Your task to perform on an android device: Search for the Best selling coffee table on Ikea Image 0: 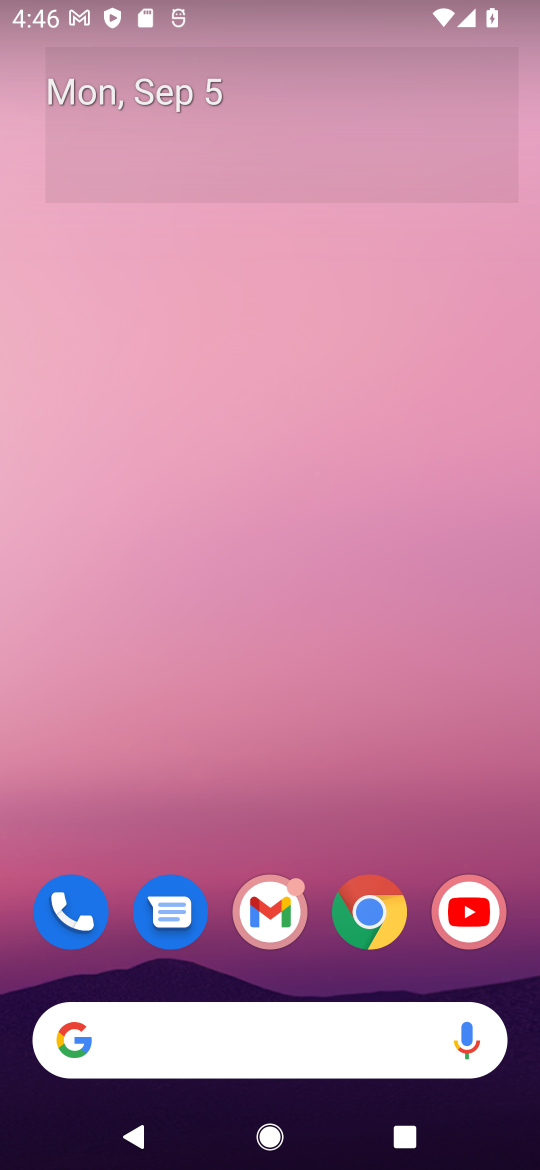
Step 0: click (369, 911)
Your task to perform on an android device: Search for the Best selling coffee table on Ikea Image 1: 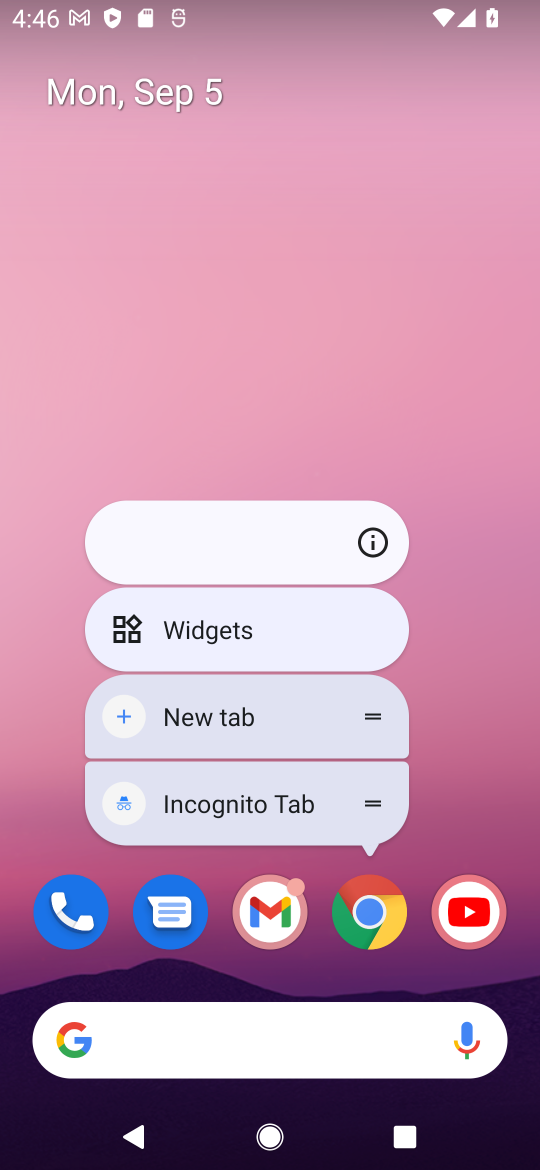
Step 1: click (369, 911)
Your task to perform on an android device: Search for the Best selling coffee table on Ikea Image 2: 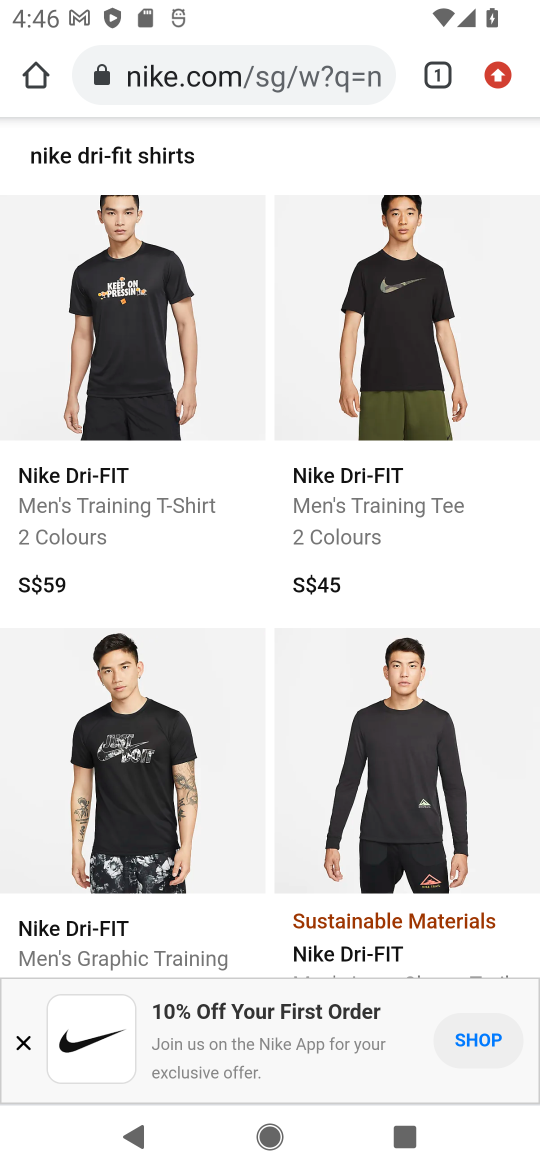
Step 2: click (329, 77)
Your task to perform on an android device: Search for the Best selling coffee table on Ikea Image 3: 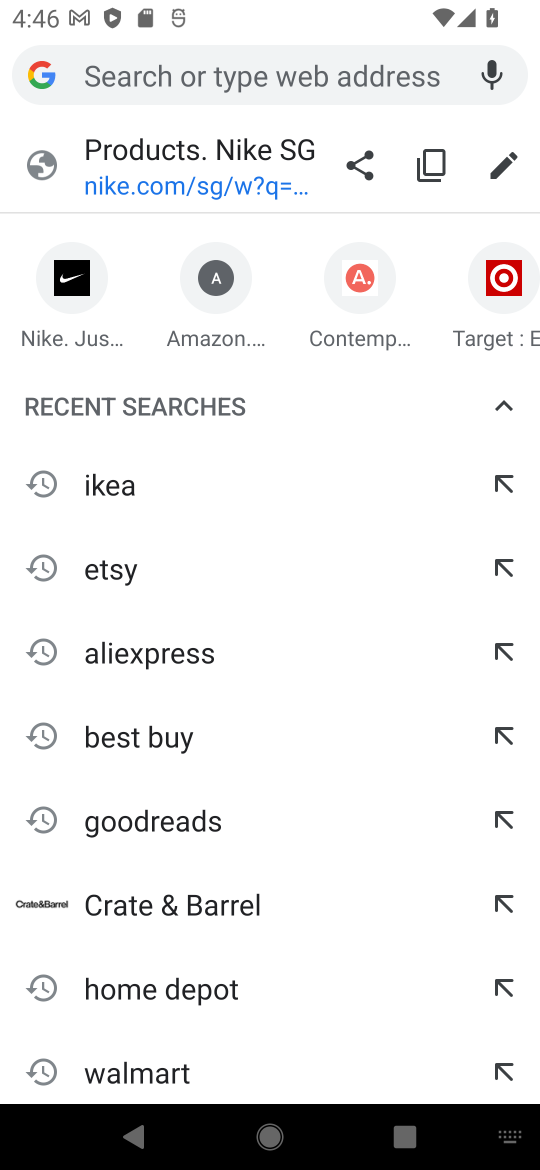
Step 3: type "ikea"
Your task to perform on an android device: Search for the Best selling coffee table on Ikea Image 4: 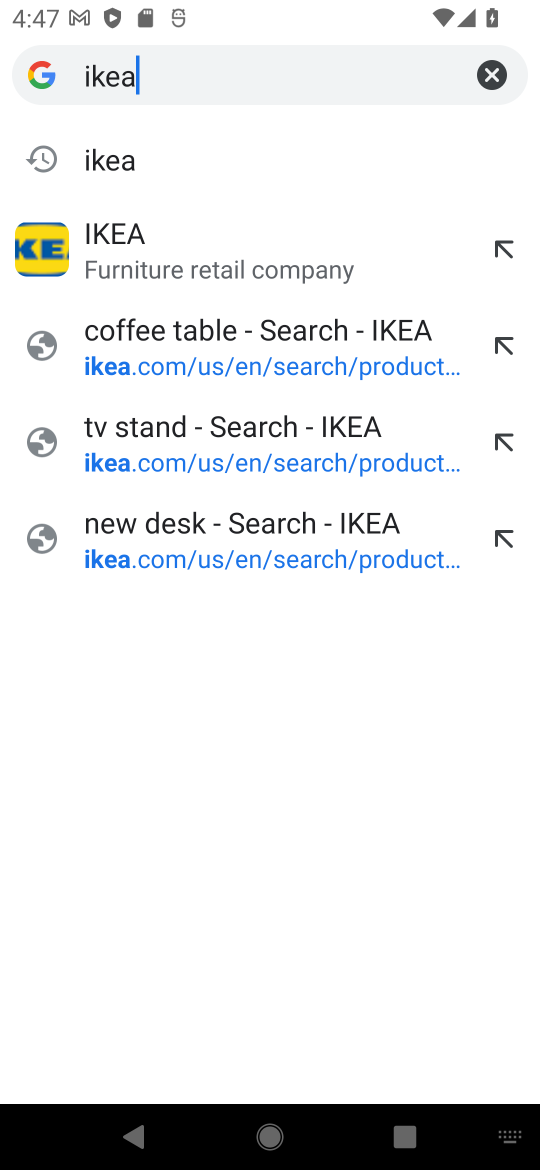
Step 4: press enter
Your task to perform on an android device: Search for the Best selling coffee table on Ikea Image 5: 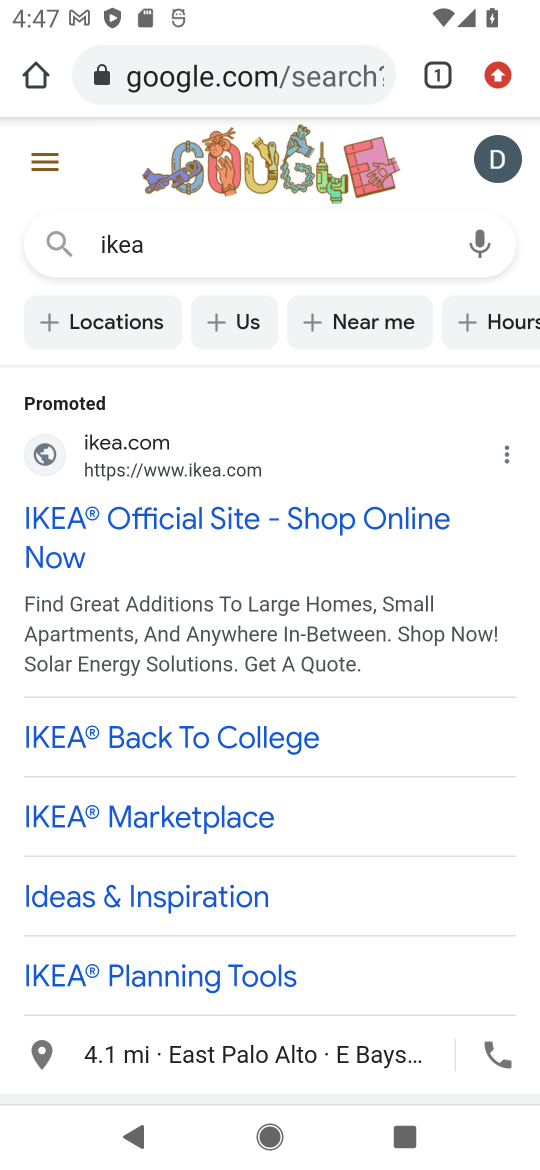
Step 5: click (206, 522)
Your task to perform on an android device: Search for the Best selling coffee table on Ikea Image 6: 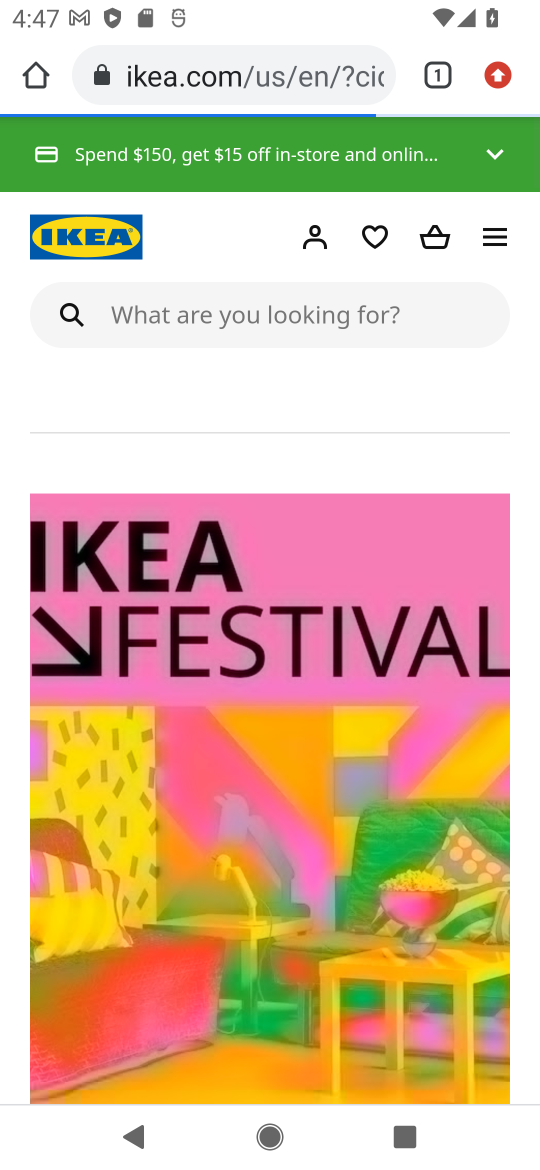
Step 6: click (294, 285)
Your task to perform on an android device: Search for the Best selling coffee table on Ikea Image 7: 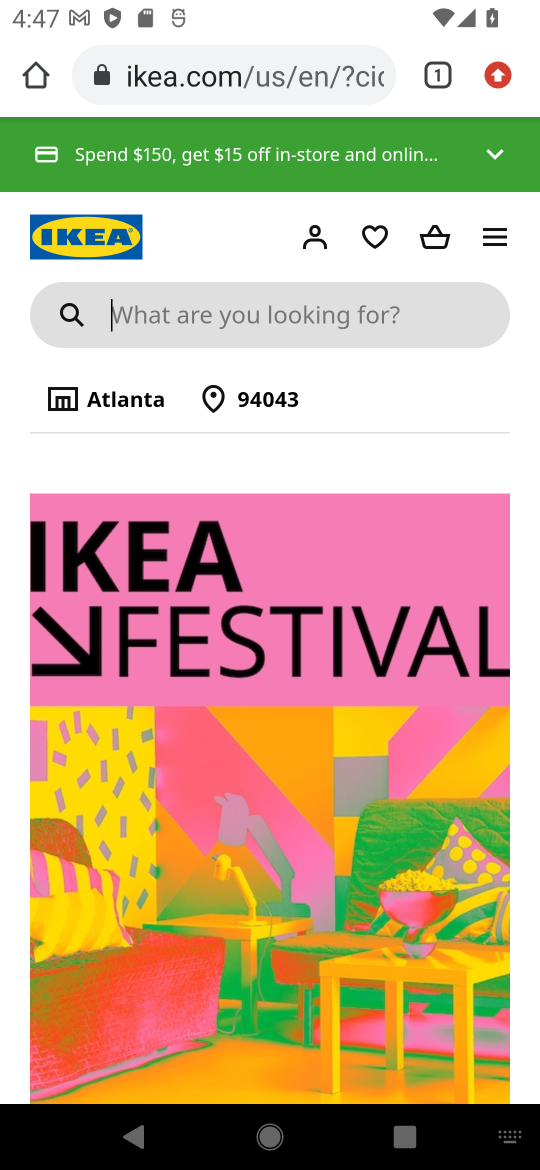
Step 7: type "best selling coffee table"
Your task to perform on an android device: Search for the Best selling coffee table on Ikea Image 8: 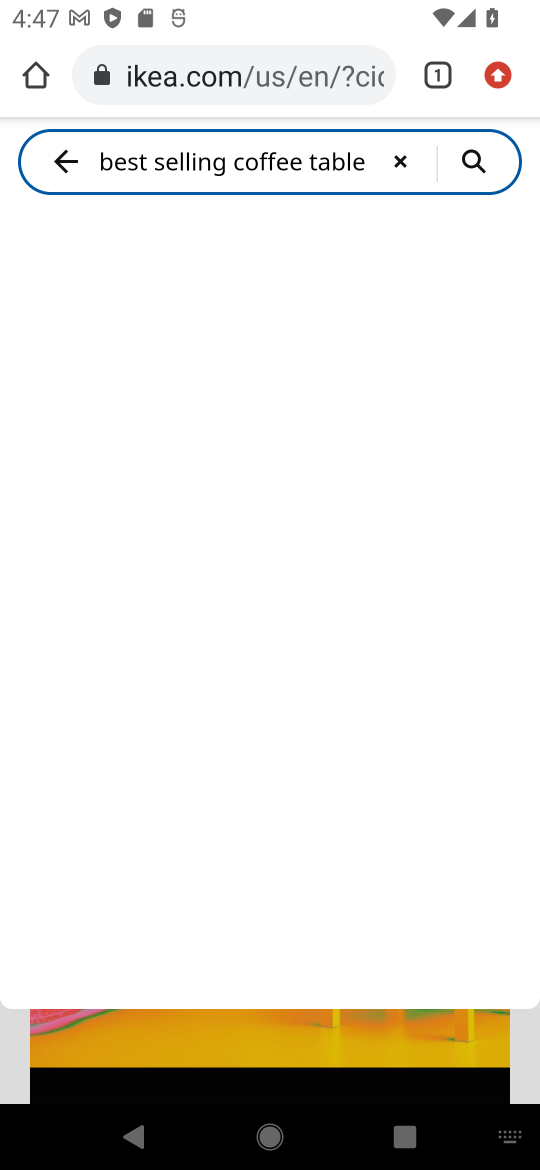
Step 8: press enter
Your task to perform on an android device: Search for the Best selling coffee table on Ikea Image 9: 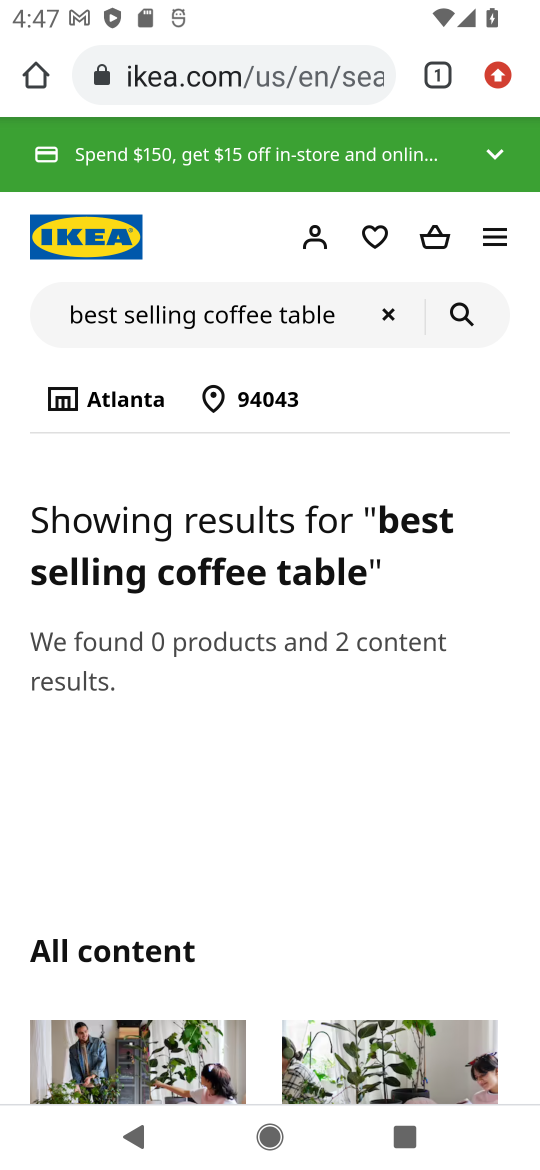
Step 9: click (388, 312)
Your task to perform on an android device: Search for the Best selling coffee table on Ikea Image 10: 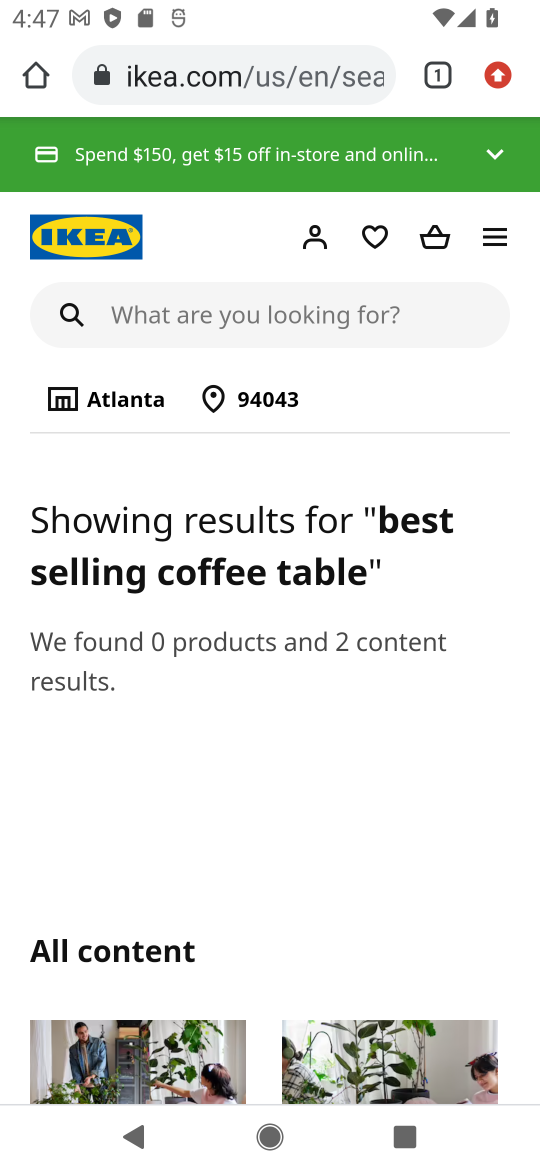
Step 10: click (285, 321)
Your task to perform on an android device: Search for the Best selling coffee table on Ikea Image 11: 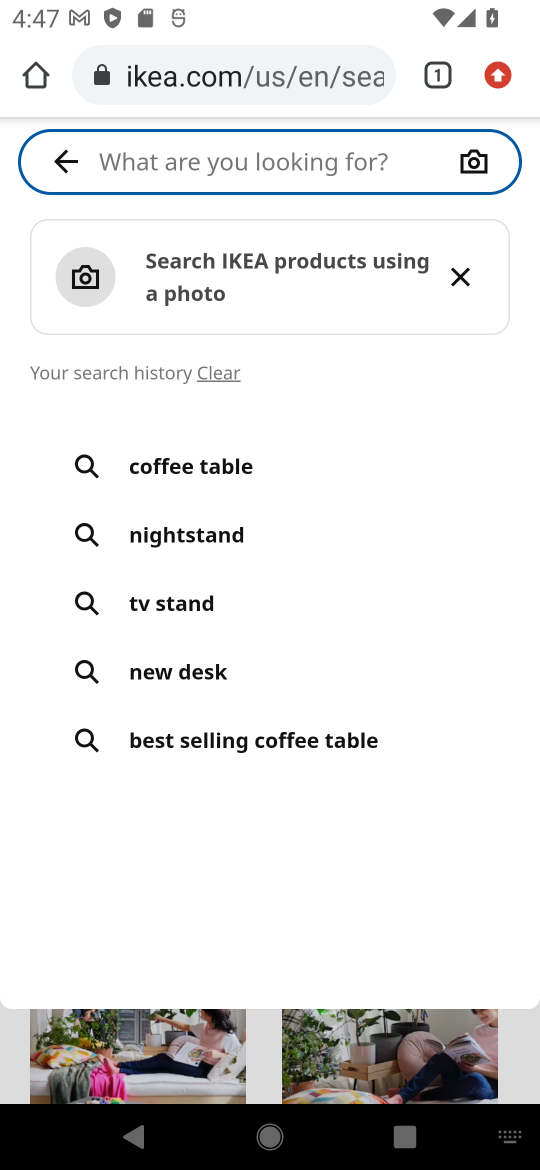
Step 11: type "coffee table"
Your task to perform on an android device: Search for the Best selling coffee table on Ikea Image 12: 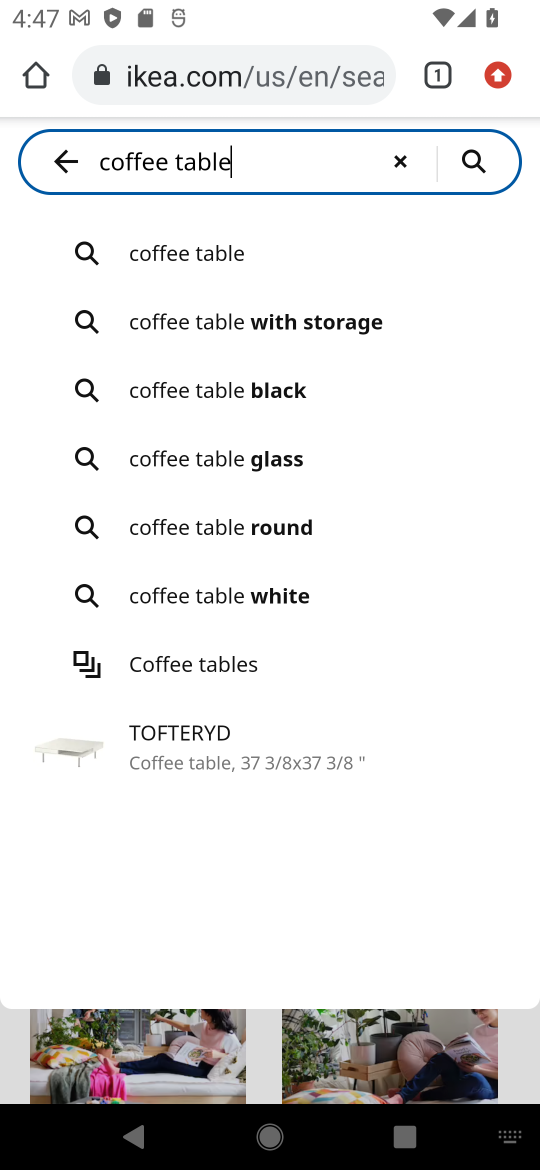
Step 12: press enter
Your task to perform on an android device: Search for the Best selling coffee table on Ikea Image 13: 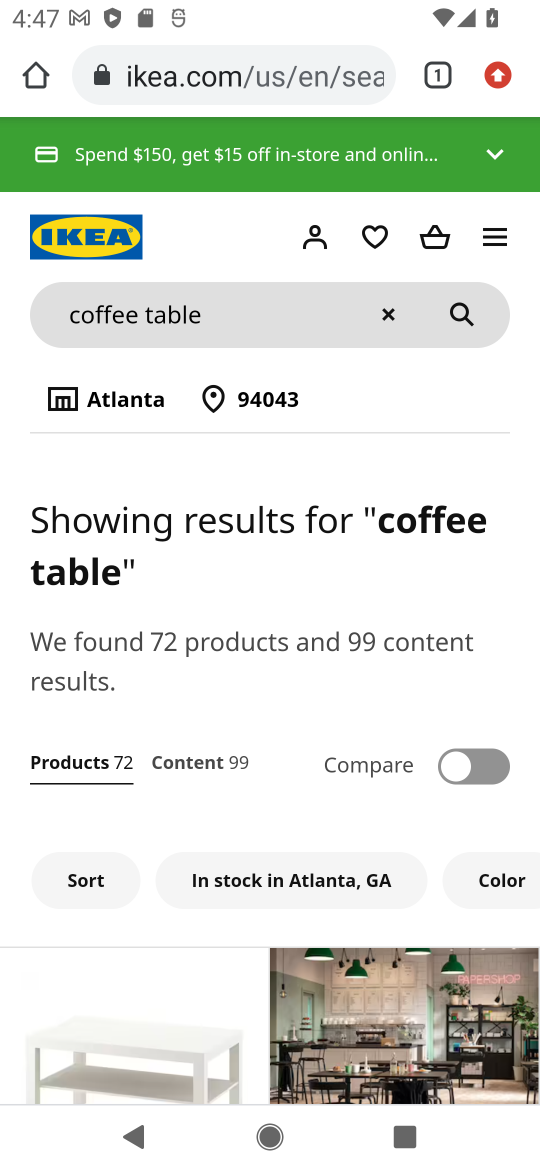
Step 13: click (80, 873)
Your task to perform on an android device: Search for the Best selling coffee table on Ikea Image 14: 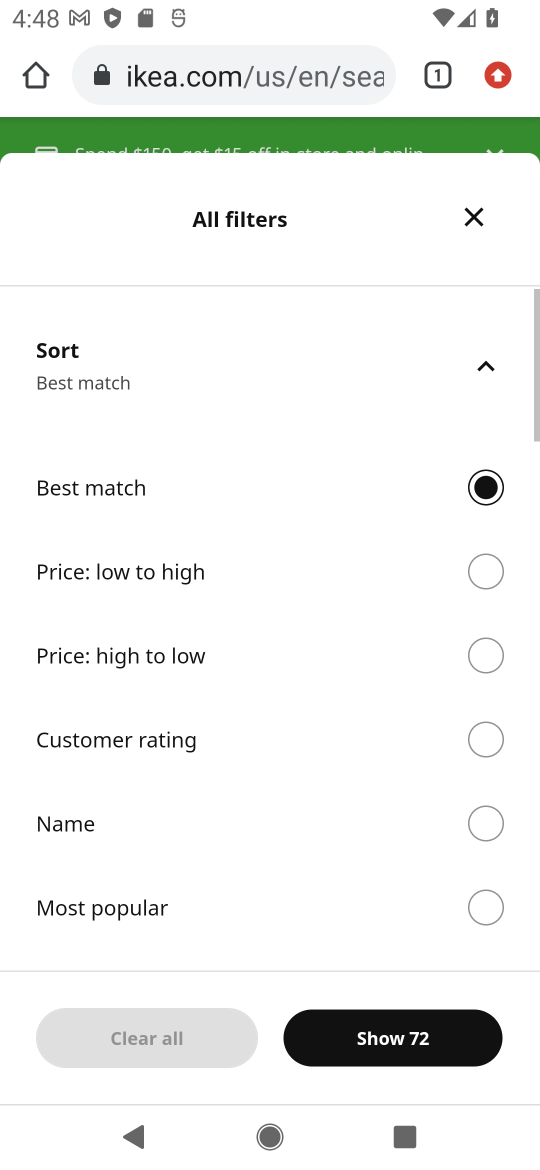
Step 14: drag from (333, 849) to (336, 339)
Your task to perform on an android device: Search for the Best selling coffee table on Ikea Image 15: 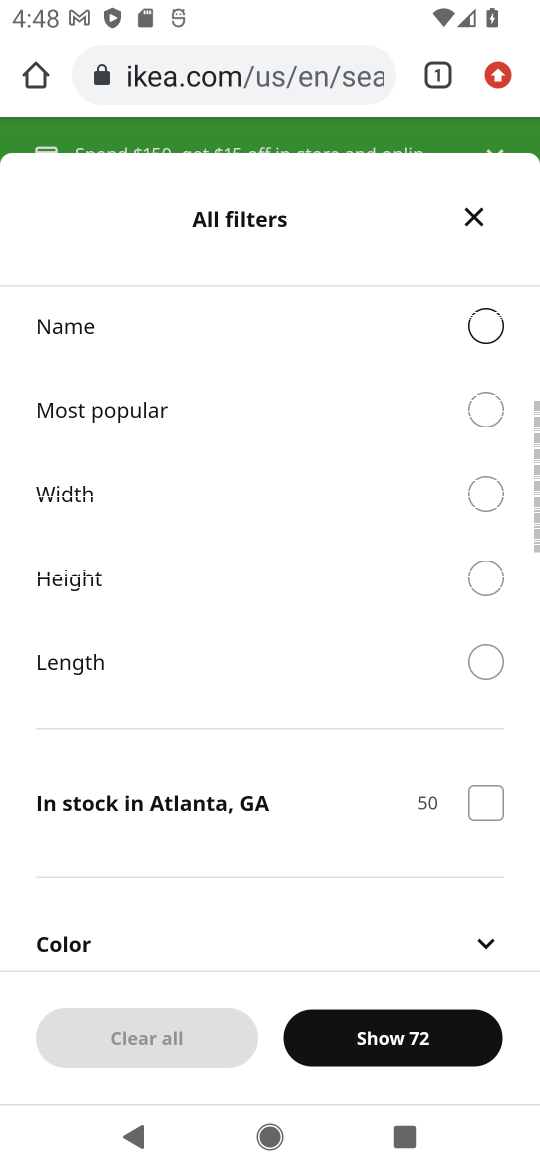
Step 15: drag from (366, 768) to (362, 279)
Your task to perform on an android device: Search for the Best selling coffee table on Ikea Image 16: 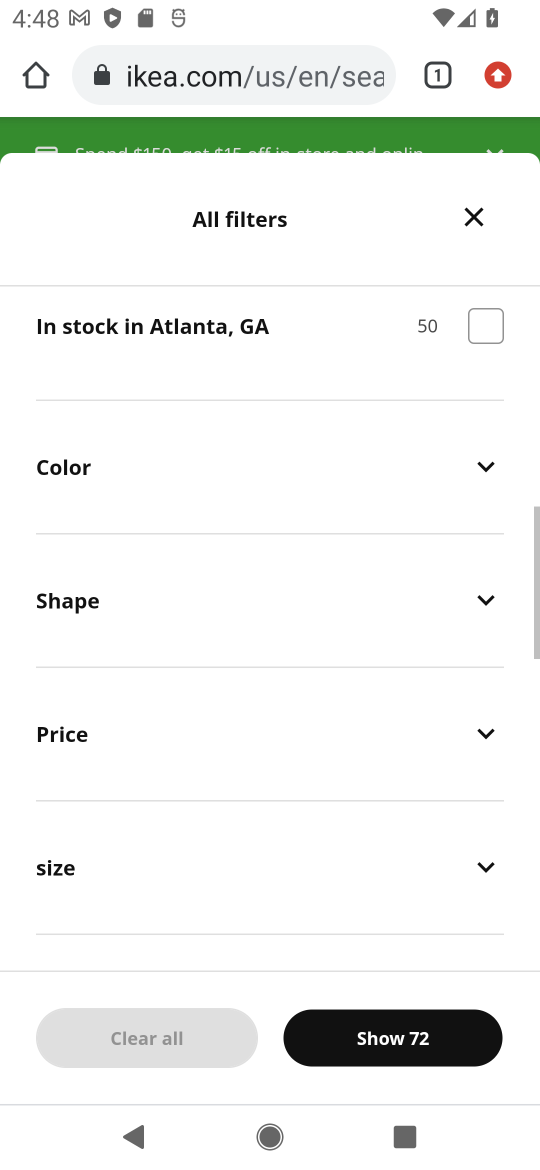
Step 16: drag from (342, 837) to (380, 436)
Your task to perform on an android device: Search for the Best selling coffee table on Ikea Image 17: 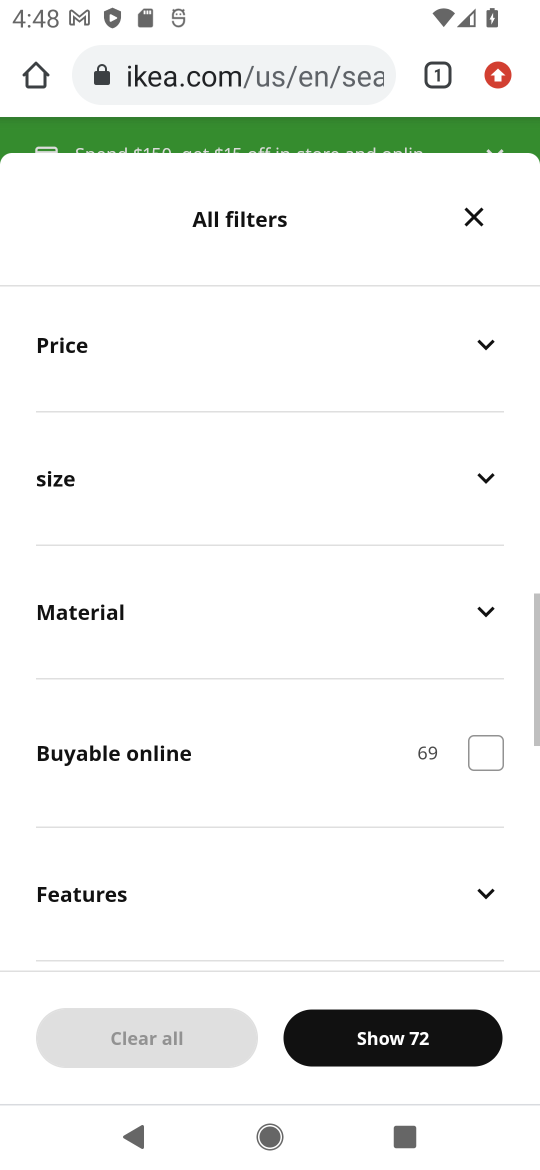
Step 17: drag from (349, 764) to (386, 371)
Your task to perform on an android device: Search for the Best selling coffee table on Ikea Image 18: 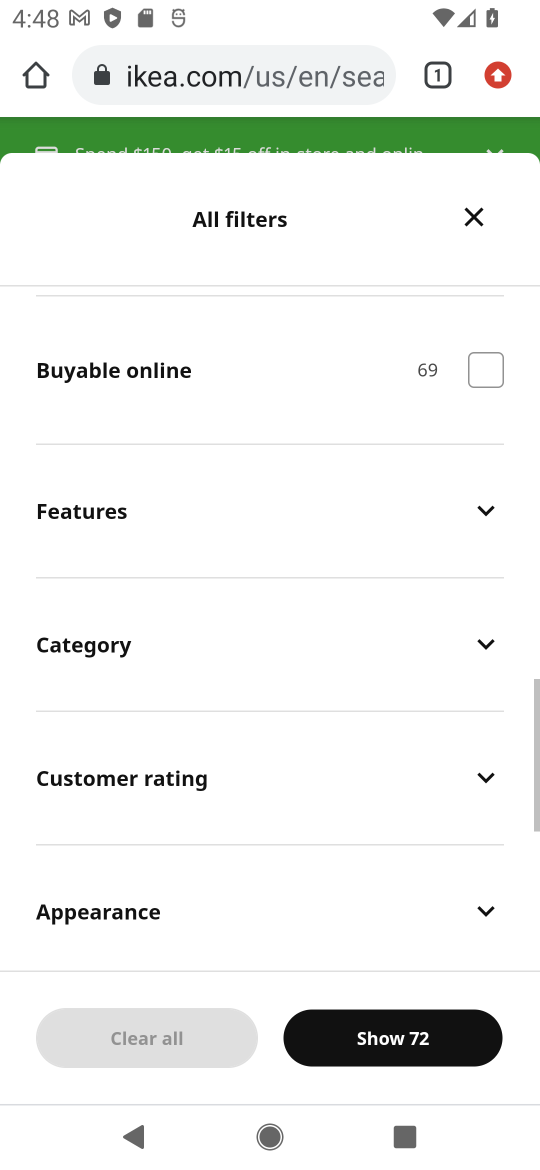
Step 18: drag from (235, 919) to (294, 440)
Your task to perform on an android device: Search for the Best selling coffee table on Ikea Image 19: 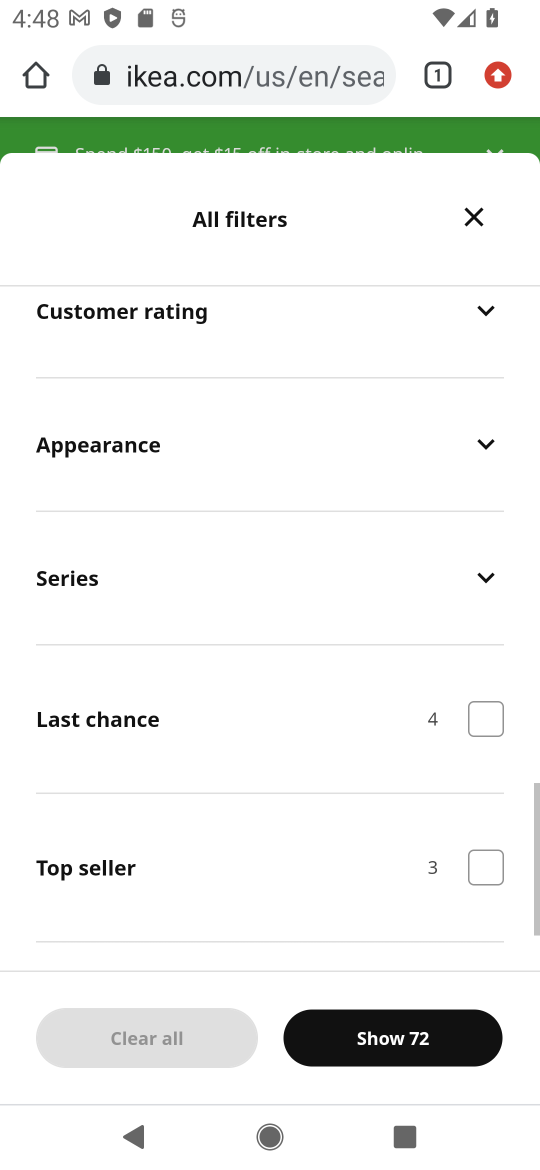
Step 19: click (480, 865)
Your task to perform on an android device: Search for the Best selling coffee table on Ikea Image 20: 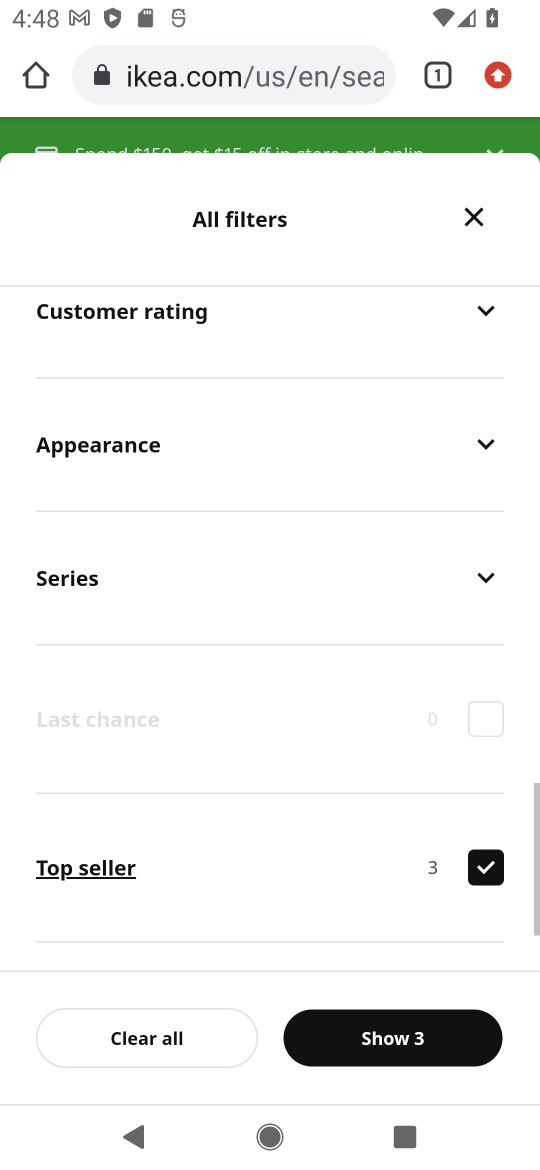
Step 20: click (441, 1034)
Your task to perform on an android device: Search for the Best selling coffee table on Ikea Image 21: 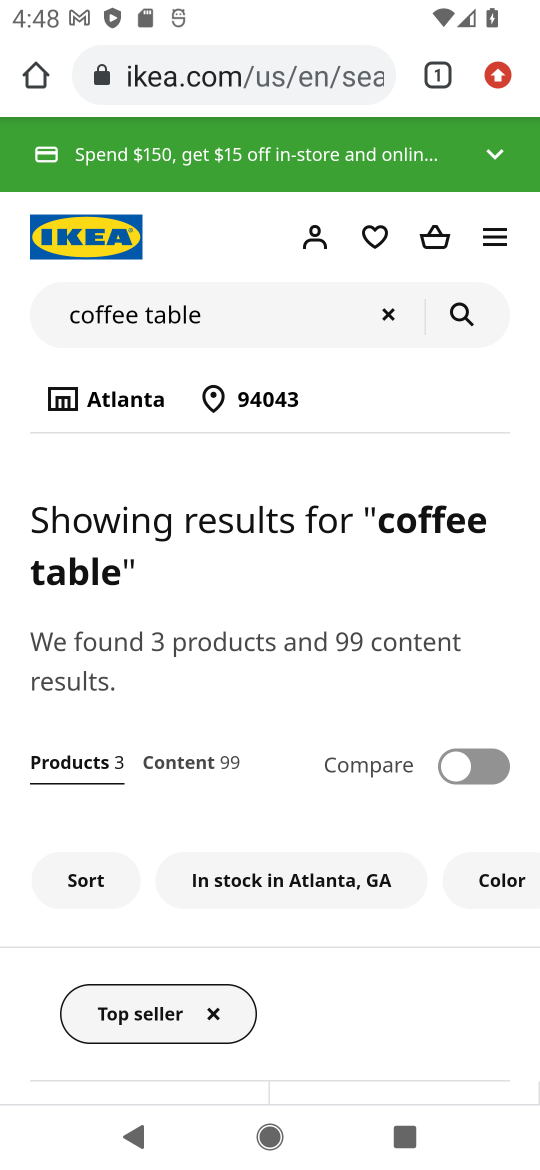
Step 21: task complete